Your task to perform on an android device: Go to settings Image 0: 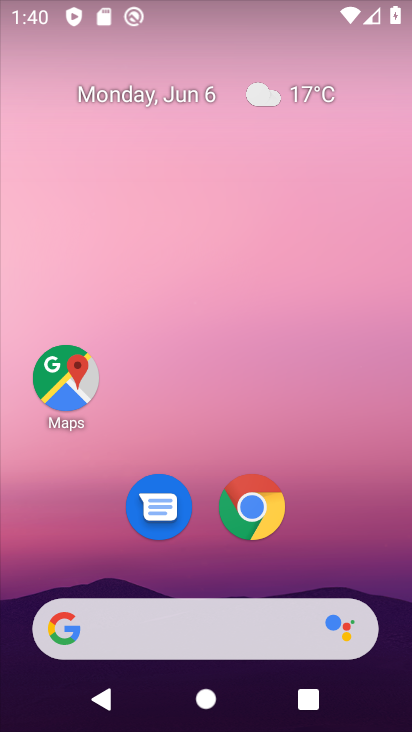
Step 0: drag from (397, 590) to (286, 68)
Your task to perform on an android device: Go to settings Image 1: 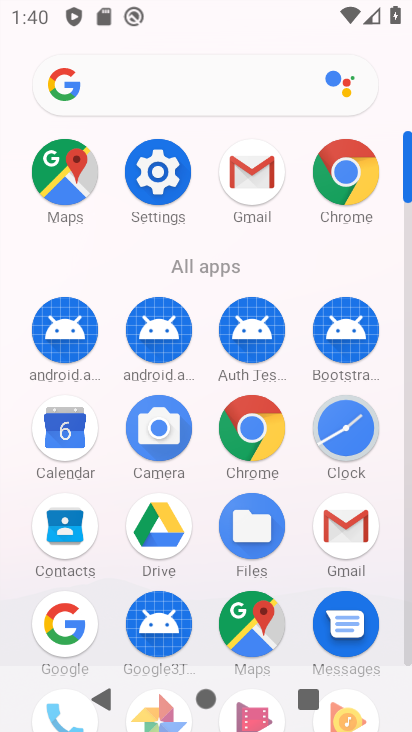
Step 1: click (147, 184)
Your task to perform on an android device: Go to settings Image 2: 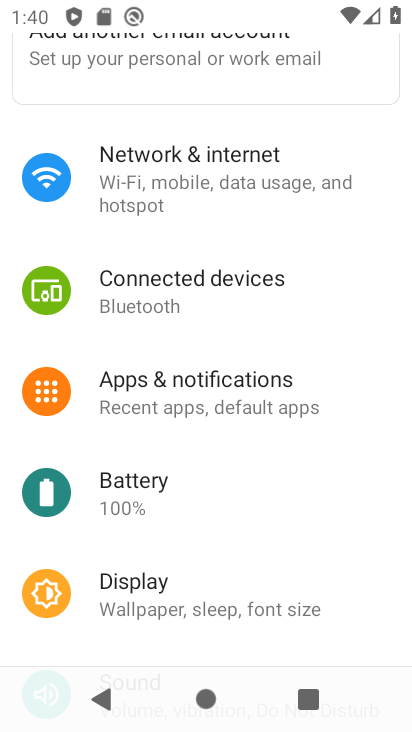
Step 2: task complete